Your task to perform on an android device: turn on priority inbox in the gmail app Image 0: 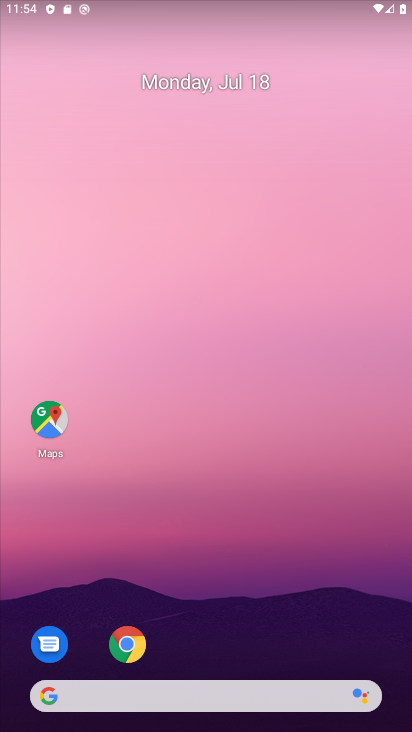
Step 0: drag from (406, 711) to (345, 145)
Your task to perform on an android device: turn on priority inbox in the gmail app Image 1: 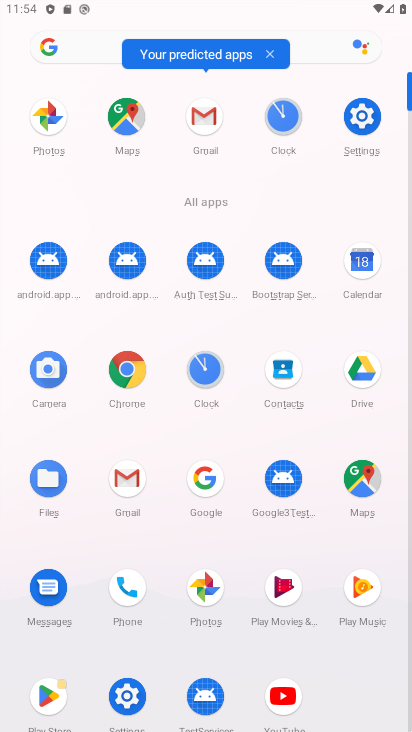
Step 1: click (207, 127)
Your task to perform on an android device: turn on priority inbox in the gmail app Image 2: 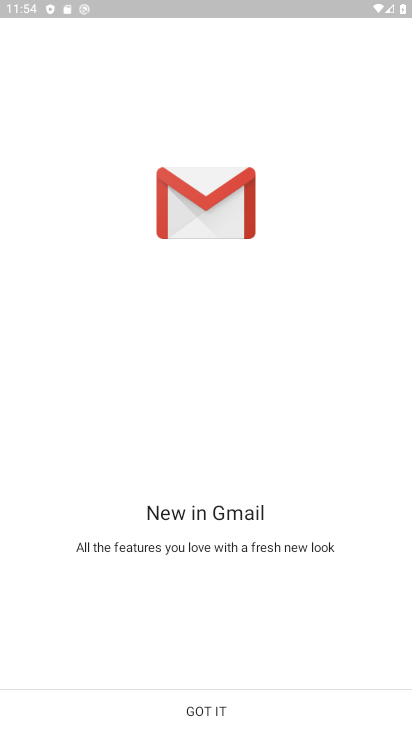
Step 2: click (212, 712)
Your task to perform on an android device: turn on priority inbox in the gmail app Image 3: 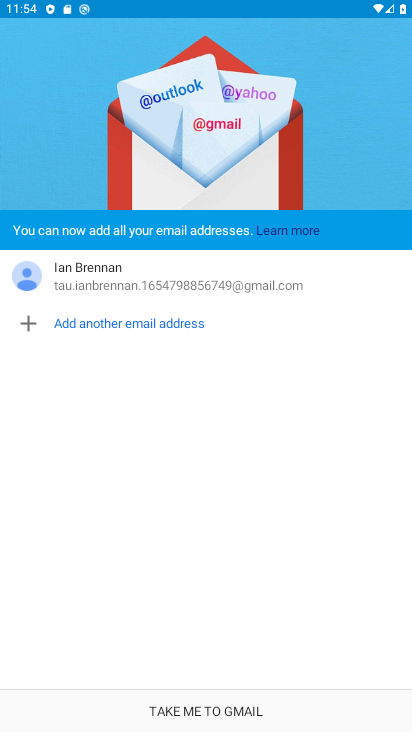
Step 3: click (212, 712)
Your task to perform on an android device: turn on priority inbox in the gmail app Image 4: 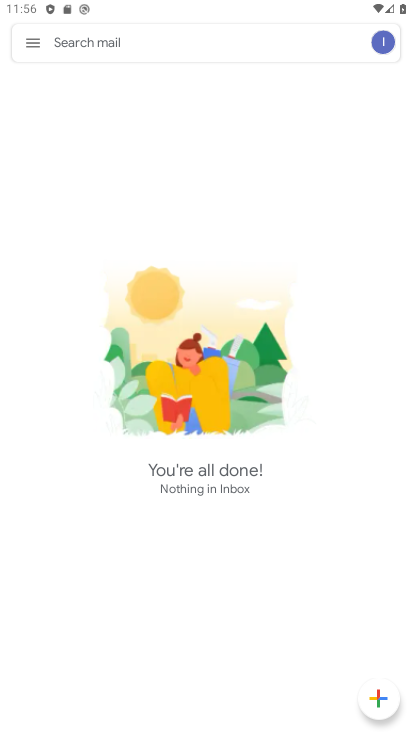
Step 4: click (39, 44)
Your task to perform on an android device: turn on priority inbox in the gmail app Image 5: 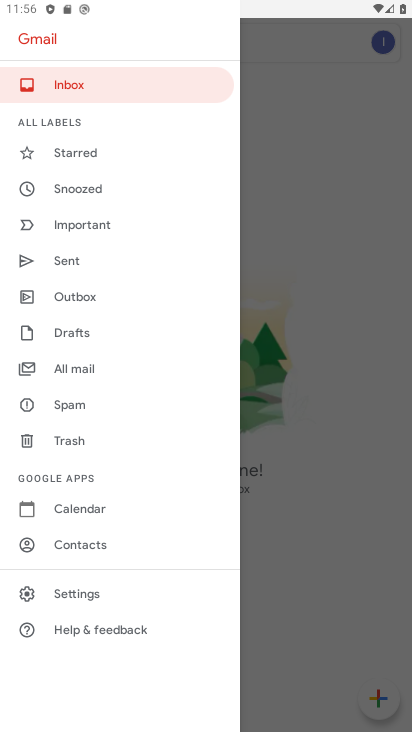
Step 5: click (60, 588)
Your task to perform on an android device: turn on priority inbox in the gmail app Image 6: 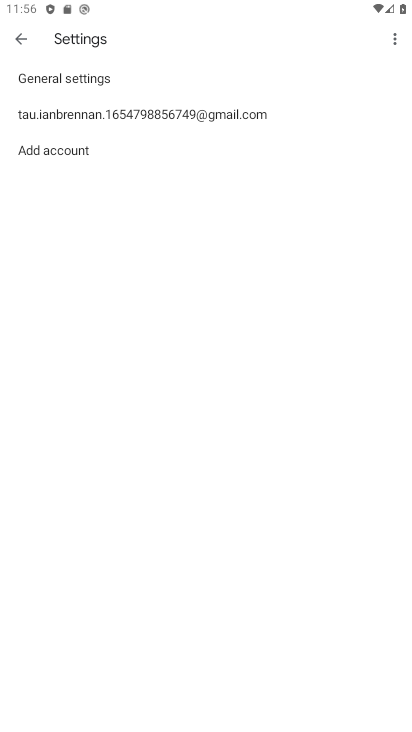
Step 6: click (101, 114)
Your task to perform on an android device: turn on priority inbox in the gmail app Image 7: 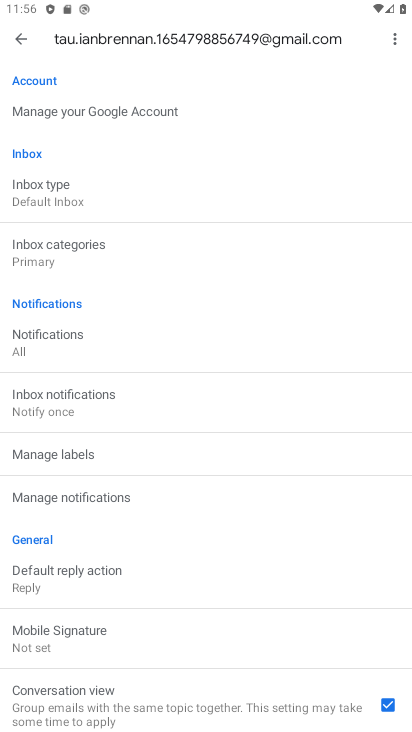
Step 7: drag from (181, 651) to (196, 247)
Your task to perform on an android device: turn on priority inbox in the gmail app Image 8: 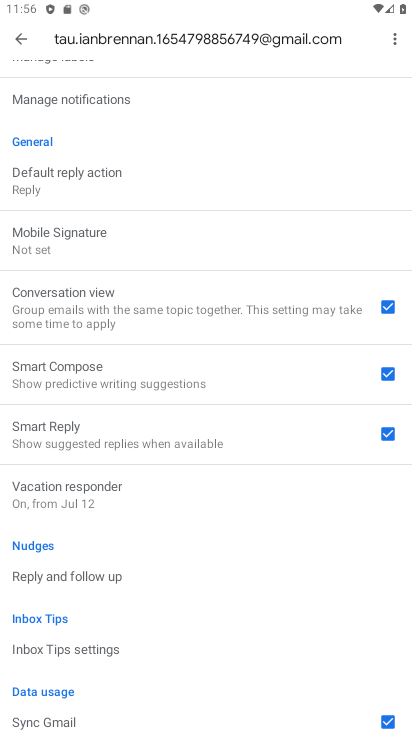
Step 8: drag from (186, 566) to (201, 343)
Your task to perform on an android device: turn on priority inbox in the gmail app Image 9: 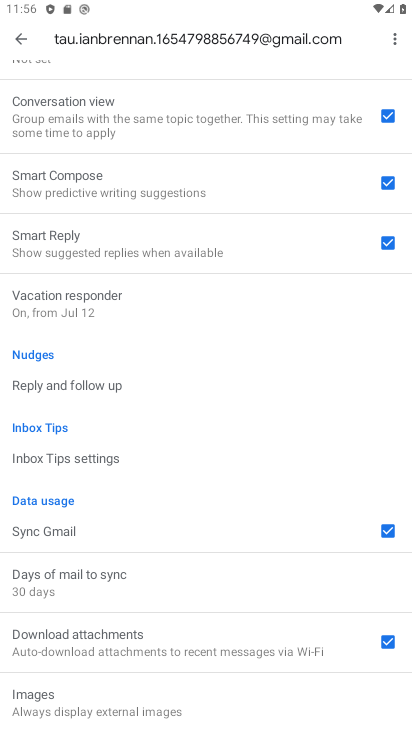
Step 9: drag from (168, 241) to (181, 686)
Your task to perform on an android device: turn on priority inbox in the gmail app Image 10: 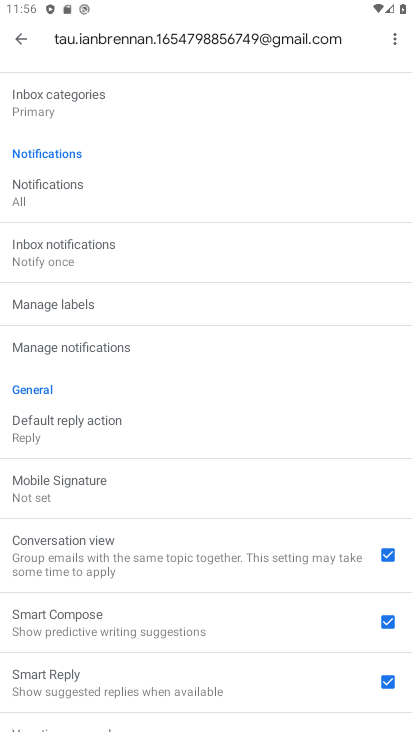
Step 10: drag from (122, 138) to (149, 570)
Your task to perform on an android device: turn on priority inbox in the gmail app Image 11: 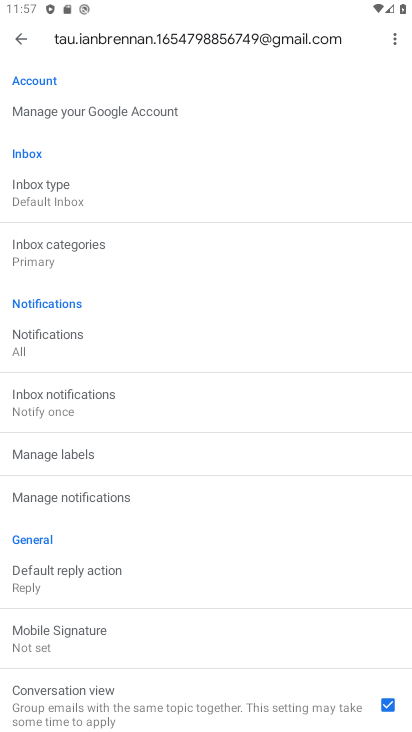
Step 11: click (28, 189)
Your task to perform on an android device: turn on priority inbox in the gmail app Image 12: 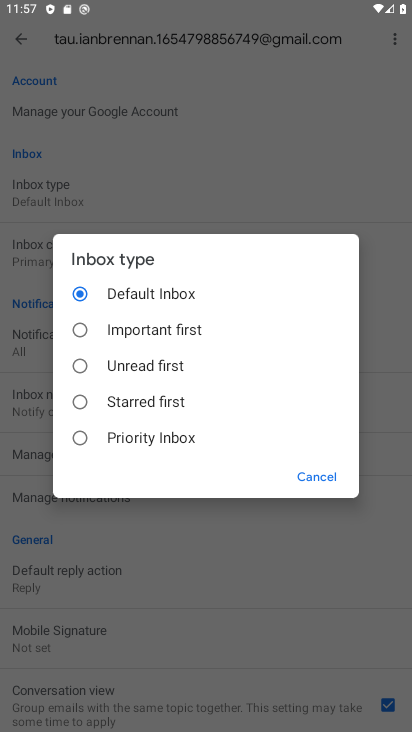
Step 12: click (118, 429)
Your task to perform on an android device: turn on priority inbox in the gmail app Image 13: 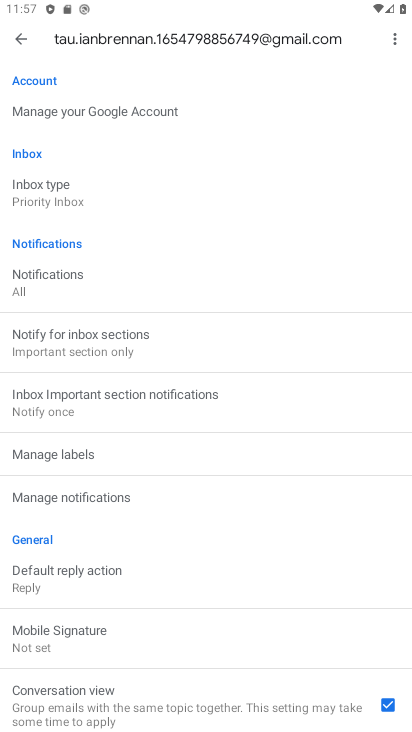
Step 13: task complete